Your task to perform on an android device: Is it going to rain today? Image 0: 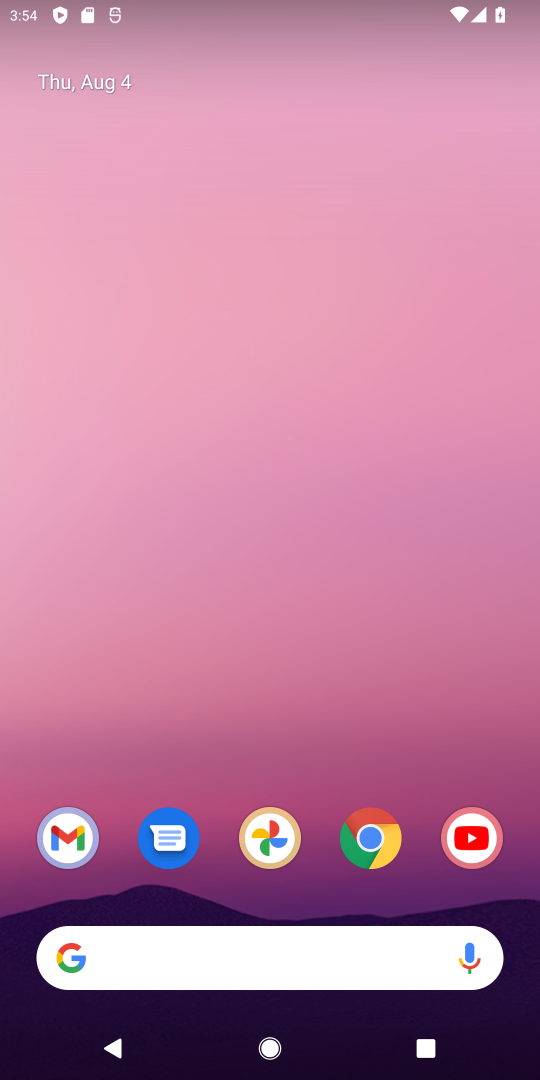
Step 0: click (243, 971)
Your task to perform on an android device: Is it going to rain today? Image 1: 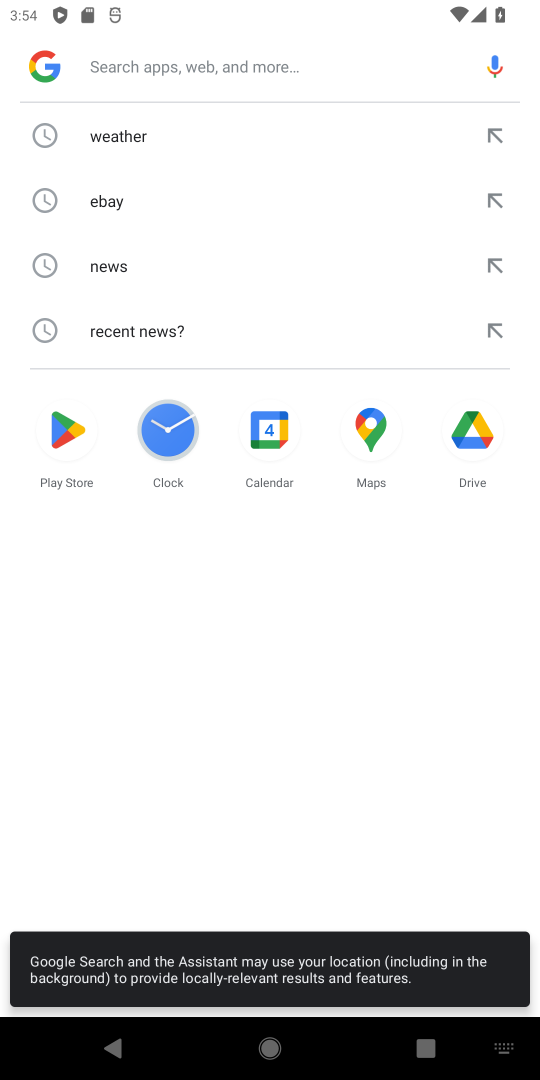
Step 1: click (136, 138)
Your task to perform on an android device: Is it going to rain today? Image 2: 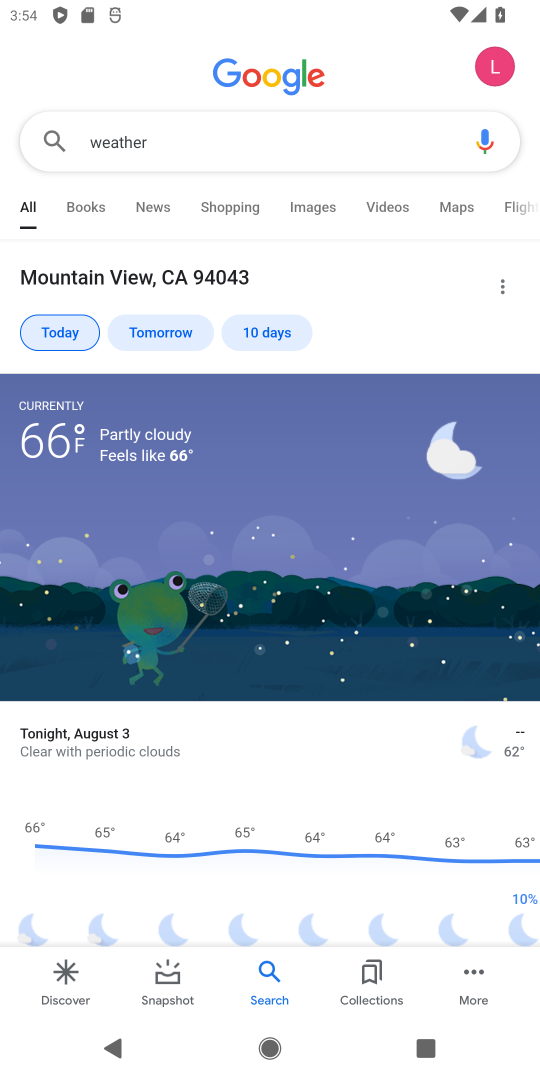
Step 2: task complete